Your task to perform on an android device: Open the Play Movies app and select the watchlist tab. Image 0: 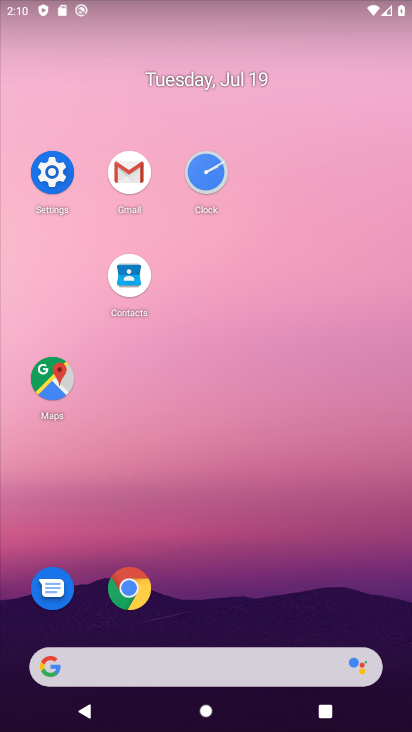
Step 0: drag from (286, 601) to (319, 153)
Your task to perform on an android device: Open the Play Movies app and select the watchlist tab. Image 1: 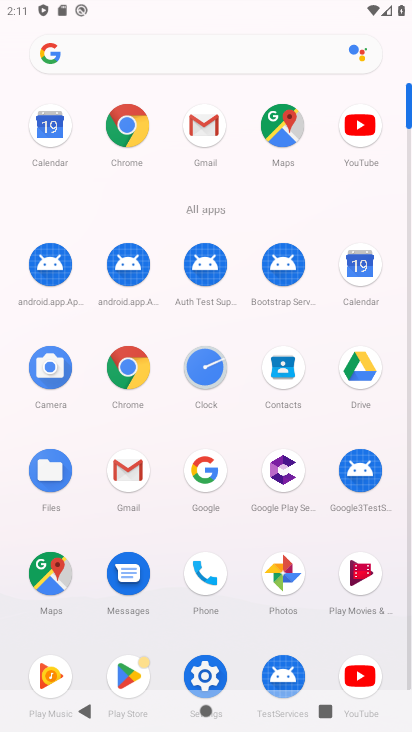
Step 1: click (363, 590)
Your task to perform on an android device: Open the Play Movies app and select the watchlist tab. Image 2: 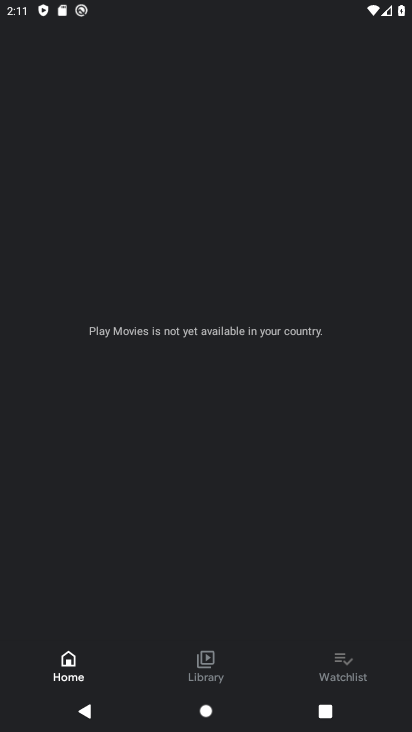
Step 2: click (276, 654)
Your task to perform on an android device: Open the Play Movies app and select the watchlist tab. Image 3: 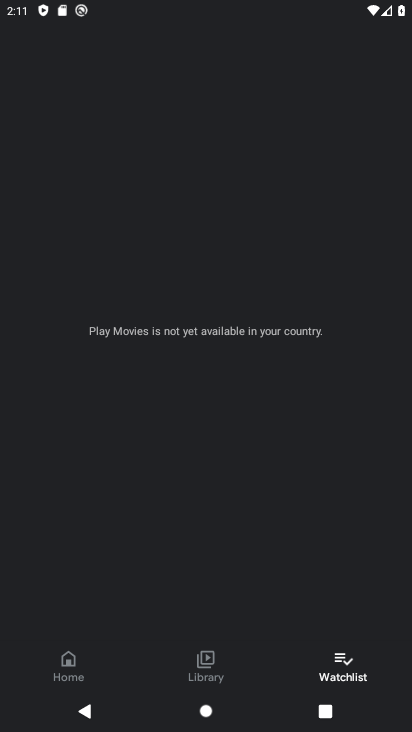
Step 3: task complete